Your task to perform on an android device: Open sound settings Image 0: 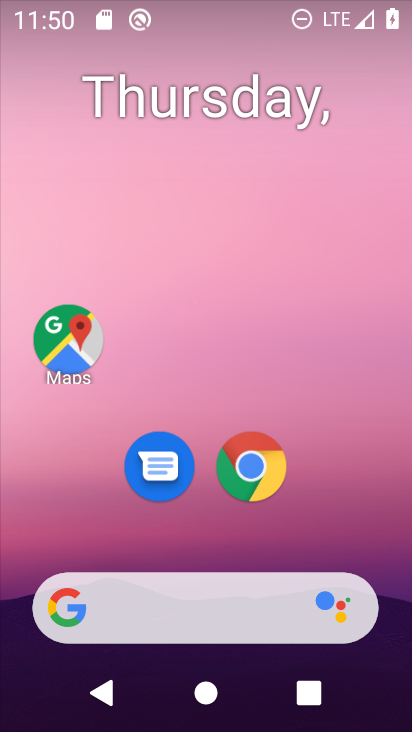
Step 0: drag from (261, 642) to (299, 7)
Your task to perform on an android device: Open sound settings Image 1: 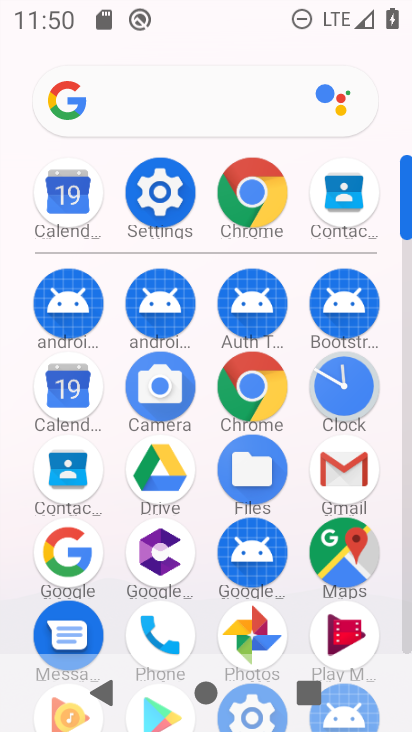
Step 1: click (151, 187)
Your task to perform on an android device: Open sound settings Image 2: 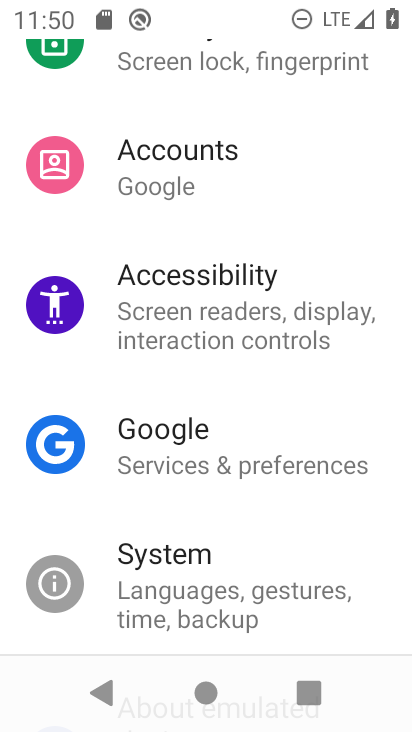
Step 2: drag from (246, 200) to (178, 707)
Your task to perform on an android device: Open sound settings Image 3: 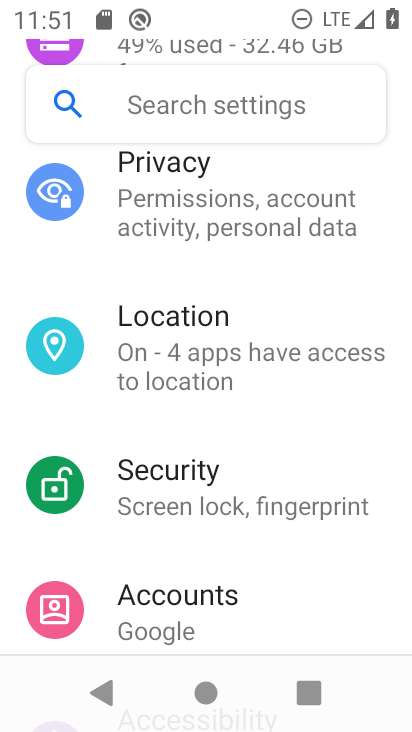
Step 3: drag from (183, 284) to (158, 703)
Your task to perform on an android device: Open sound settings Image 4: 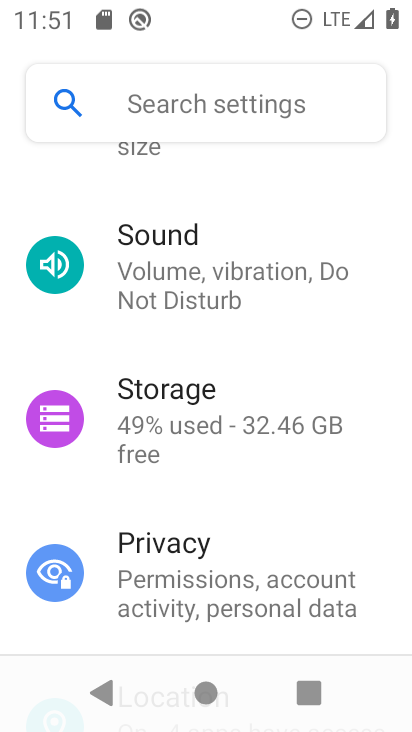
Step 4: click (186, 274)
Your task to perform on an android device: Open sound settings Image 5: 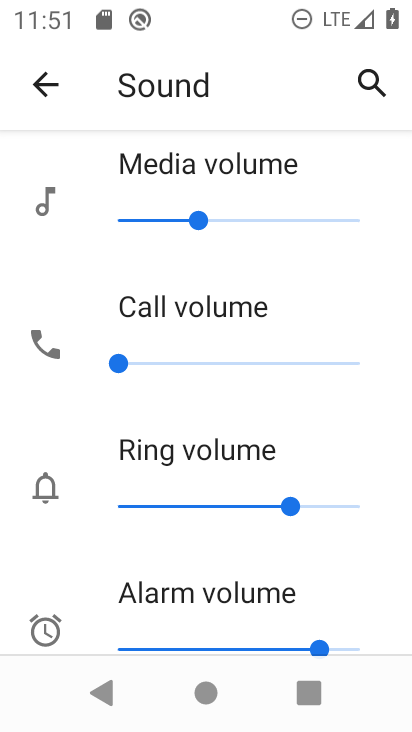
Step 5: task complete